Your task to perform on an android device: Open display settings Image 0: 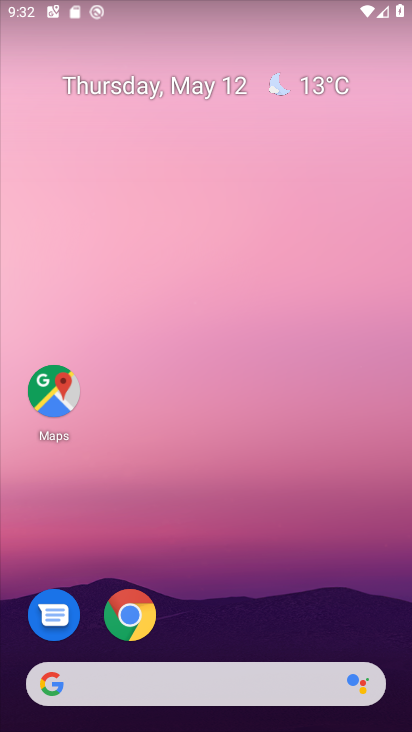
Step 0: drag from (203, 507) to (141, 165)
Your task to perform on an android device: Open display settings Image 1: 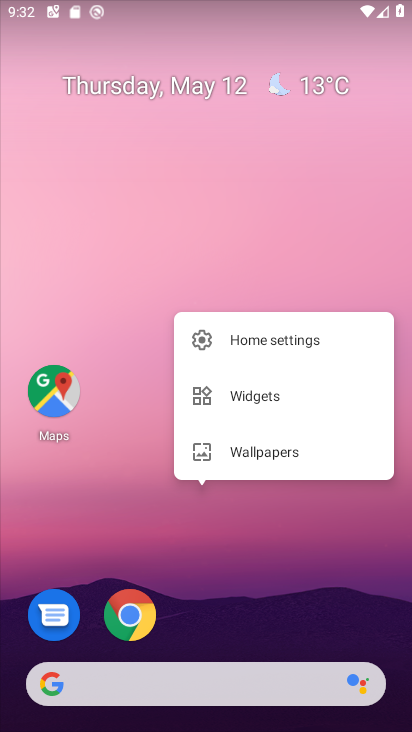
Step 1: click (138, 208)
Your task to perform on an android device: Open display settings Image 2: 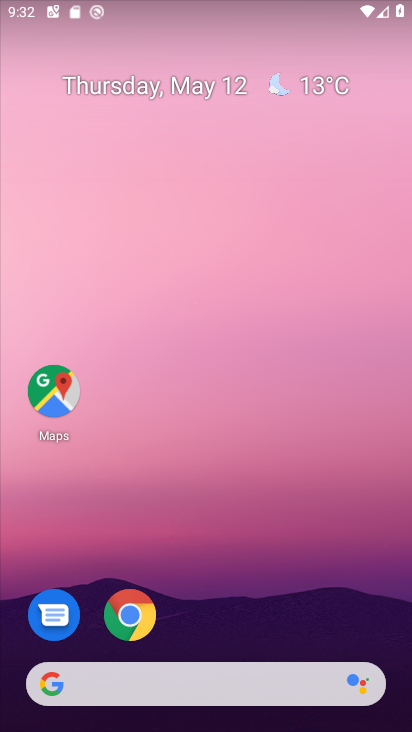
Step 2: drag from (233, 585) to (272, 181)
Your task to perform on an android device: Open display settings Image 3: 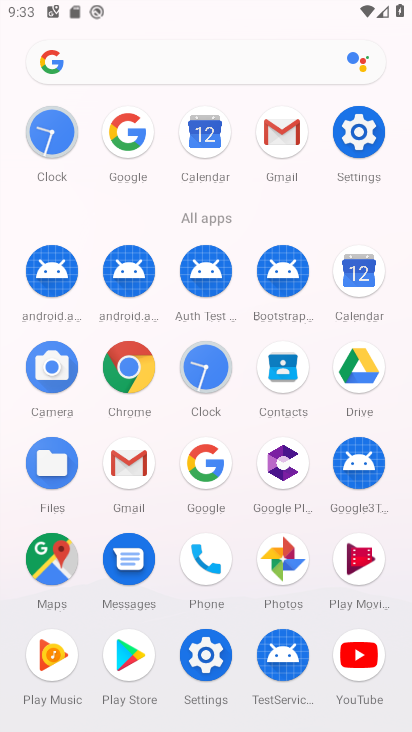
Step 3: click (352, 140)
Your task to perform on an android device: Open display settings Image 4: 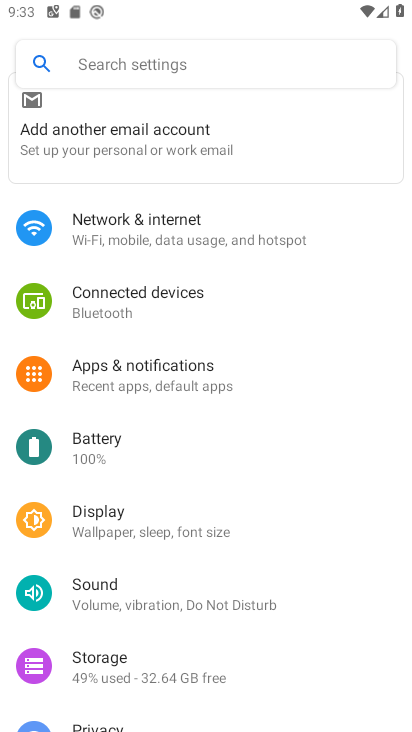
Step 4: click (98, 514)
Your task to perform on an android device: Open display settings Image 5: 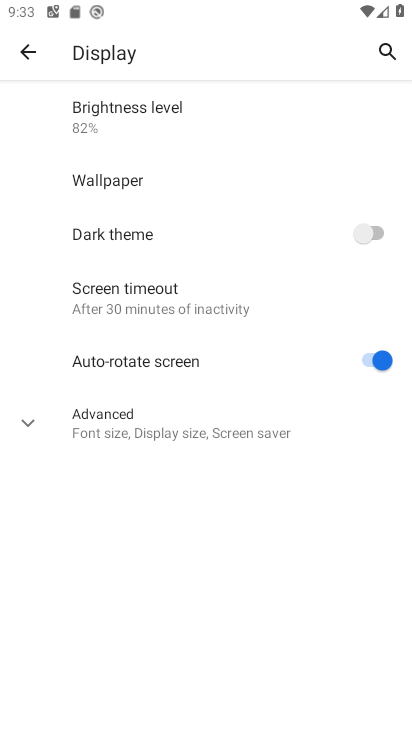
Step 5: task complete